Your task to perform on an android device: open a bookmark in the chrome app Image 0: 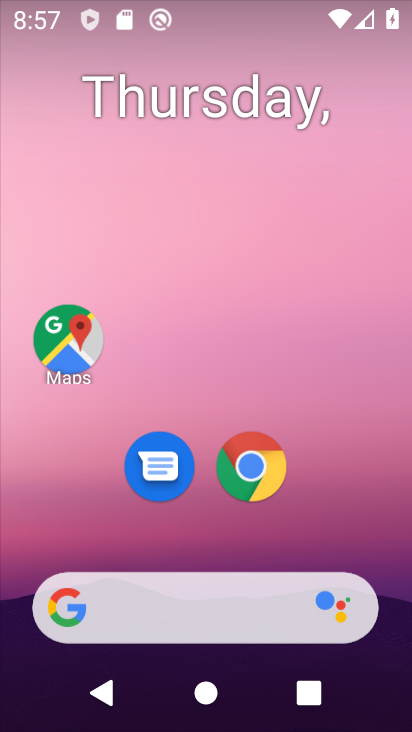
Step 0: click (242, 470)
Your task to perform on an android device: open a bookmark in the chrome app Image 1: 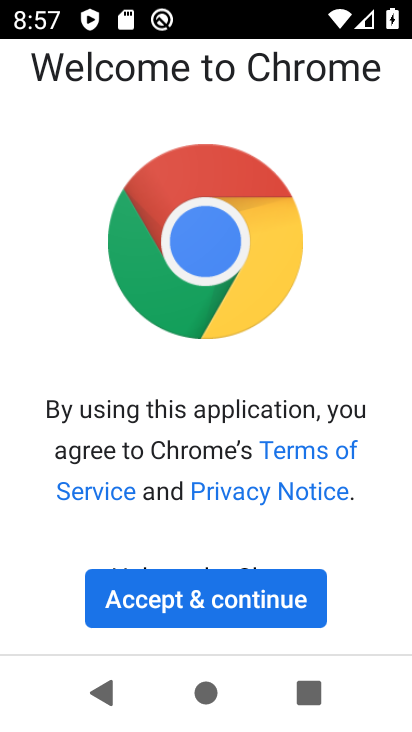
Step 1: click (213, 602)
Your task to perform on an android device: open a bookmark in the chrome app Image 2: 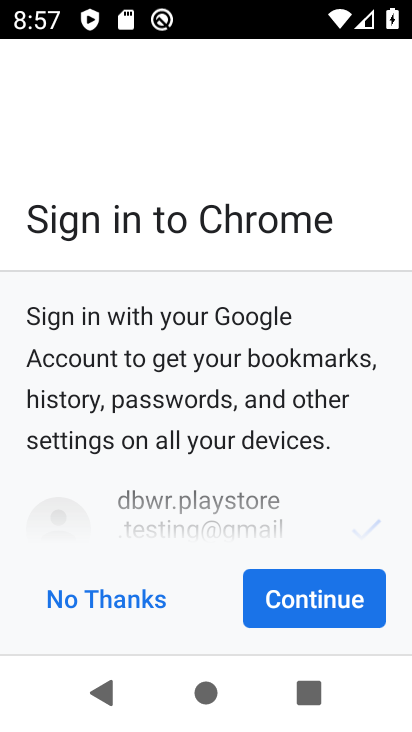
Step 2: click (320, 613)
Your task to perform on an android device: open a bookmark in the chrome app Image 3: 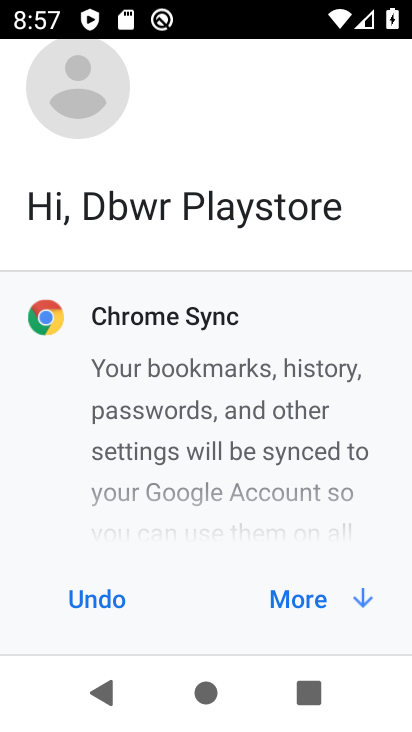
Step 3: click (319, 612)
Your task to perform on an android device: open a bookmark in the chrome app Image 4: 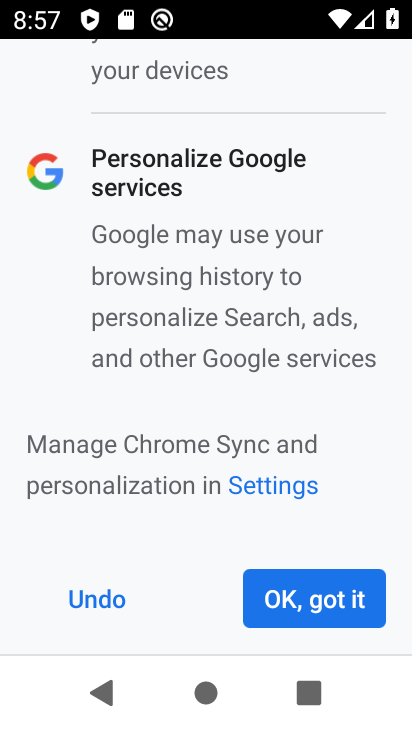
Step 4: click (319, 612)
Your task to perform on an android device: open a bookmark in the chrome app Image 5: 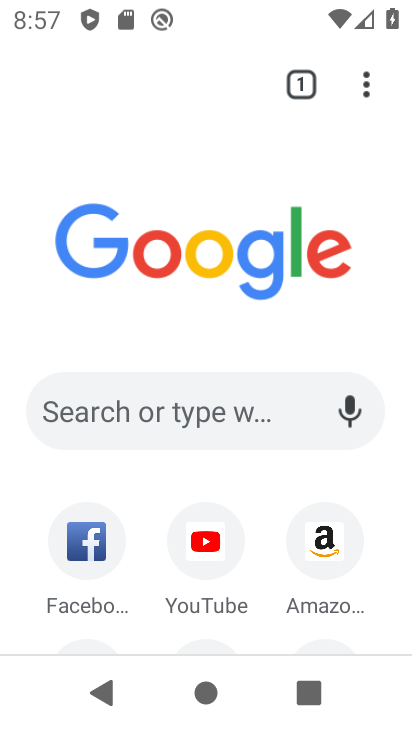
Step 5: drag from (374, 81) to (306, 320)
Your task to perform on an android device: open a bookmark in the chrome app Image 6: 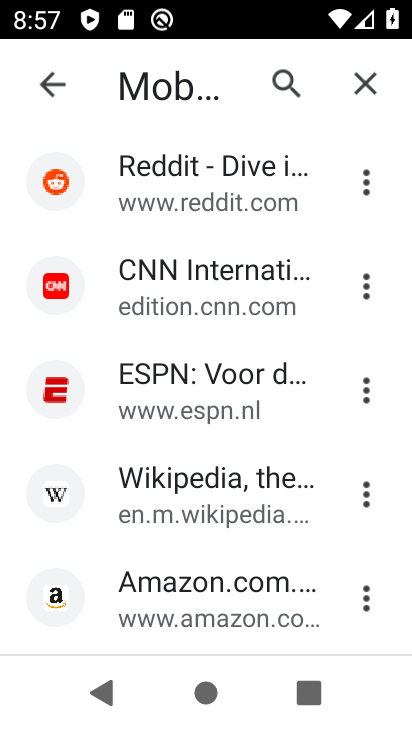
Step 6: click (217, 196)
Your task to perform on an android device: open a bookmark in the chrome app Image 7: 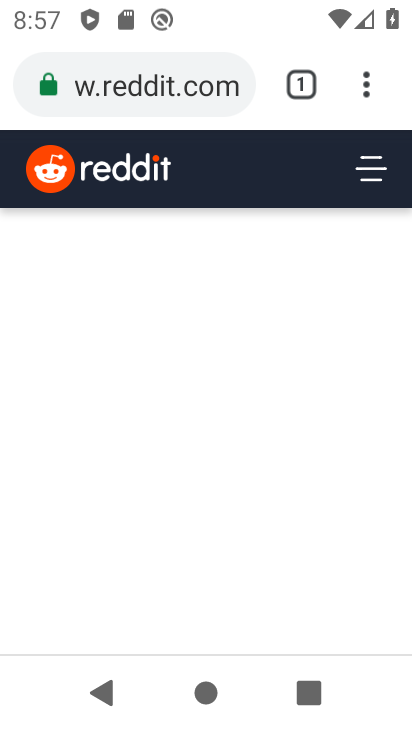
Step 7: task complete